Your task to perform on an android device: change the clock style Image 0: 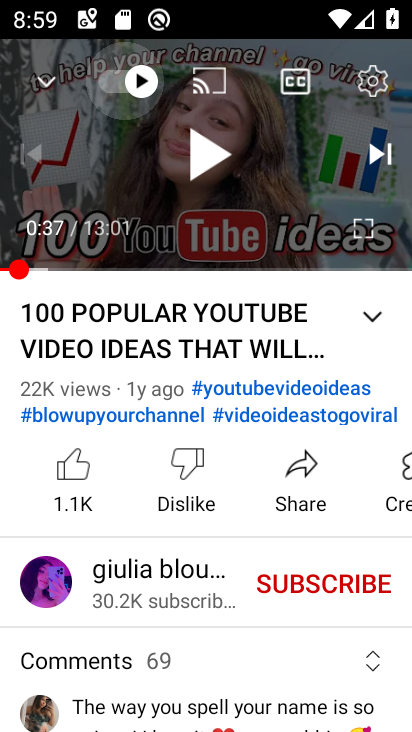
Step 0: press home button
Your task to perform on an android device: change the clock style Image 1: 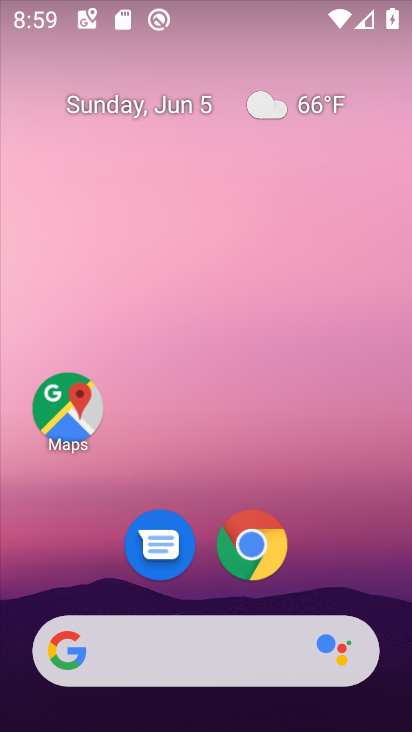
Step 1: drag from (372, 558) to (388, 155)
Your task to perform on an android device: change the clock style Image 2: 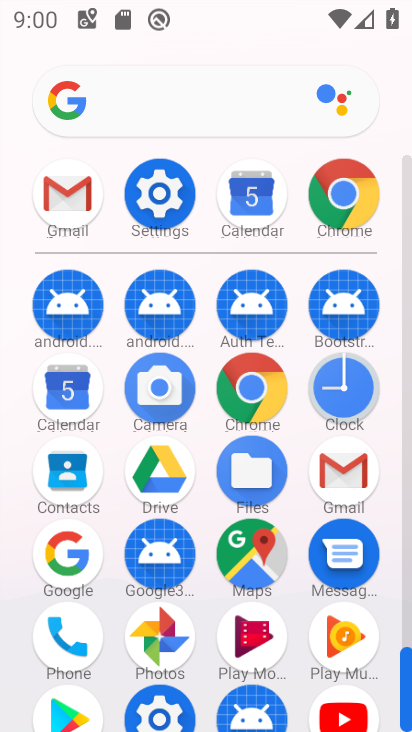
Step 2: click (379, 378)
Your task to perform on an android device: change the clock style Image 3: 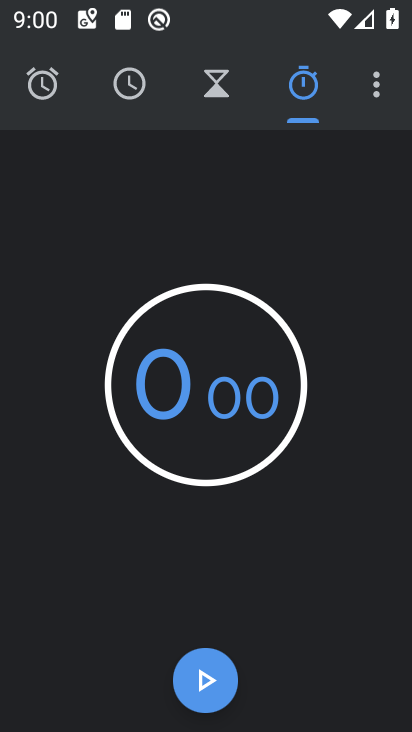
Step 3: click (379, 95)
Your task to perform on an android device: change the clock style Image 4: 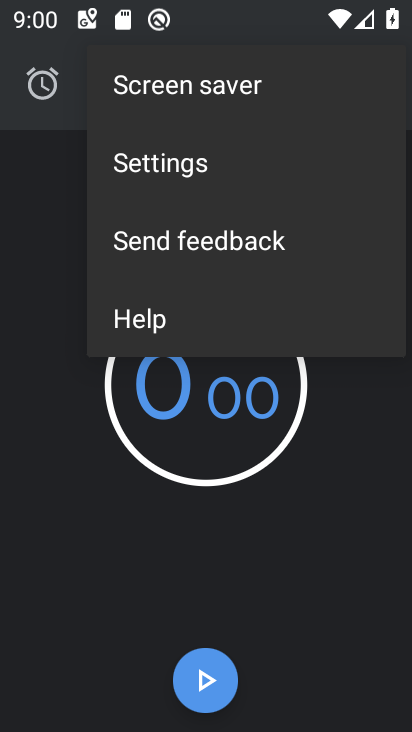
Step 4: click (222, 169)
Your task to perform on an android device: change the clock style Image 5: 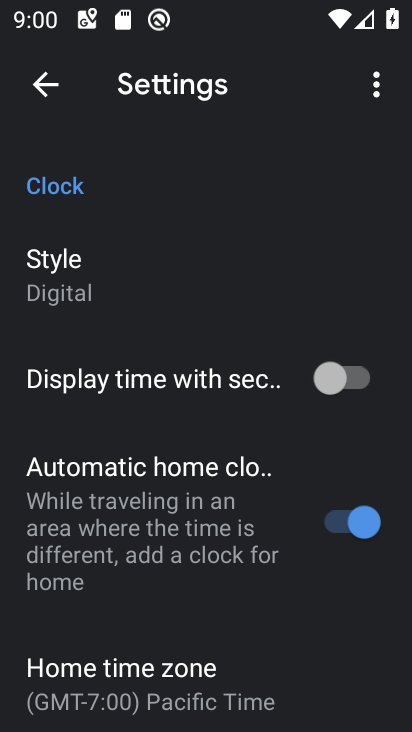
Step 5: drag from (320, 605) to (318, 470)
Your task to perform on an android device: change the clock style Image 6: 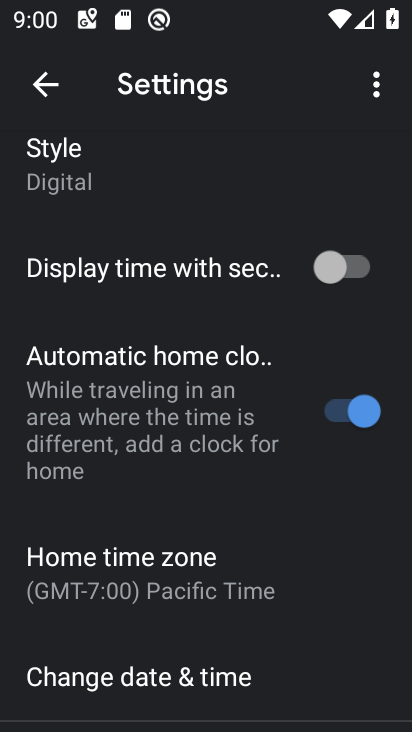
Step 6: drag from (331, 548) to (325, 426)
Your task to perform on an android device: change the clock style Image 7: 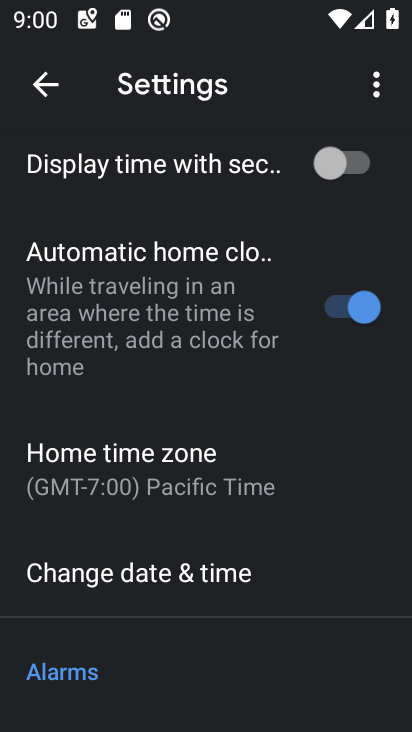
Step 7: drag from (335, 509) to (321, 357)
Your task to perform on an android device: change the clock style Image 8: 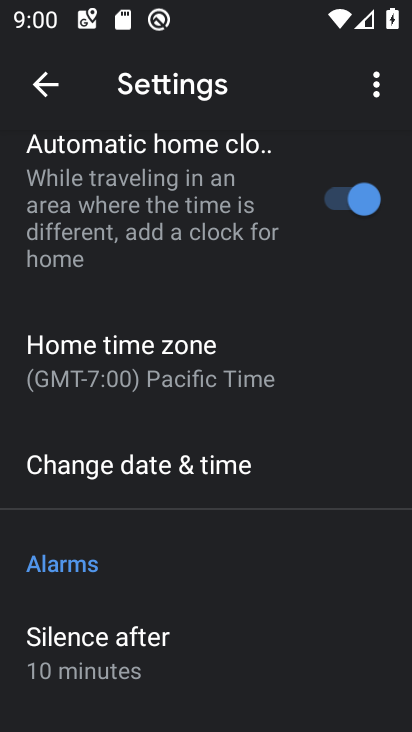
Step 8: drag from (314, 499) to (328, 403)
Your task to perform on an android device: change the clock style Image 9: 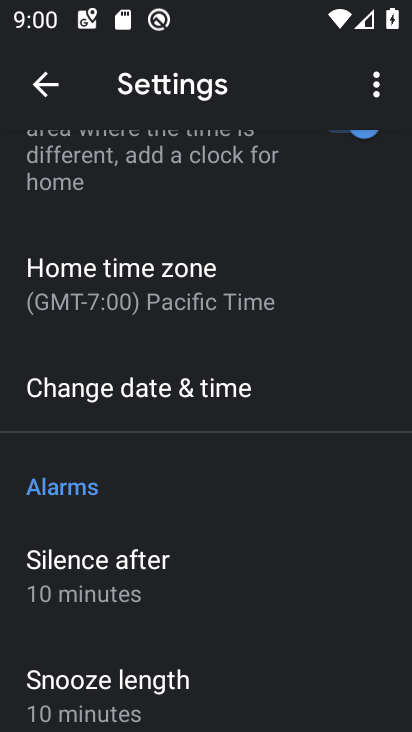
Step 9: drag from (318, 552) to (332, 407)
Your task to perform on an android device: change the clock style Image 10: 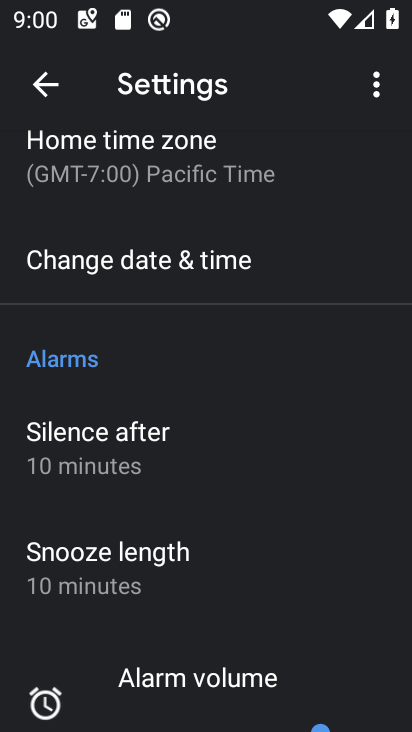
Step 10: drag from (323, 541) to (323, 399)
Your task to perform on an android device: change the clock style Image 11: 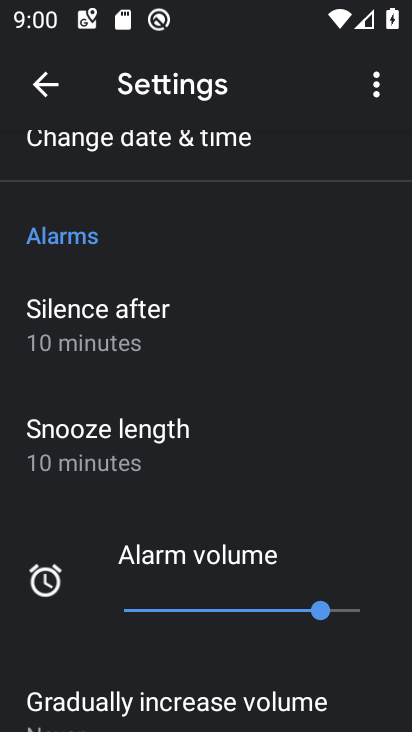
Step 11: drag from (328, 494) to (337, 356)
Your task to perform on an android device: change the clock style Image 12: 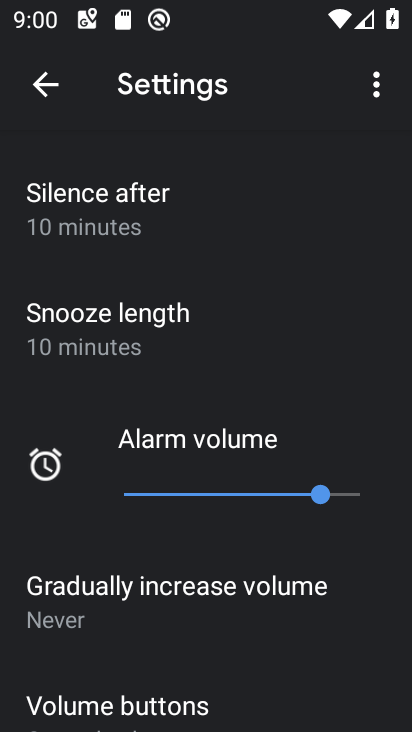
Step 12: drag from (346, 256) to (344, 406)
Your task to perform on an android device: change the clock style Image 13: 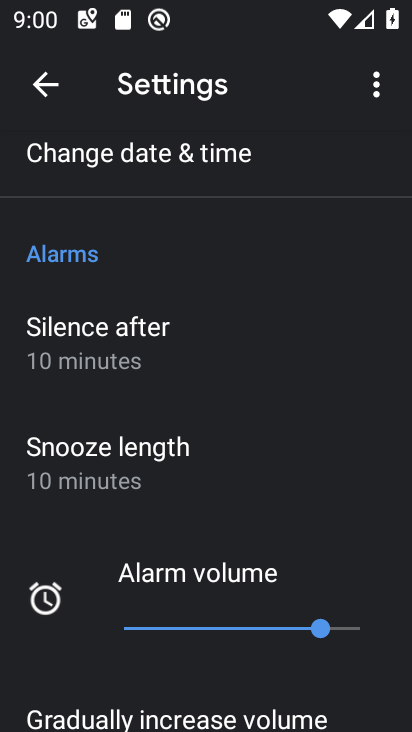
Step 13: drag from (358, 242) to (358, 349)
Your task to perform on an android device: change the clock style Image 14: 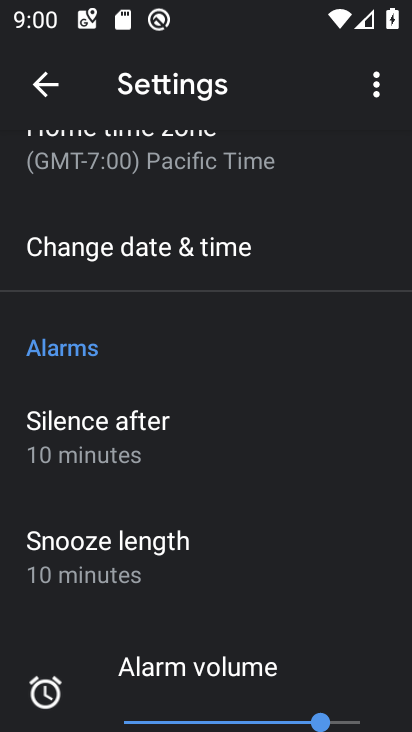
Step 14: drag from (348, 215) to (356, 331)
Your task to perform on an android device: change the clock style Image 15: 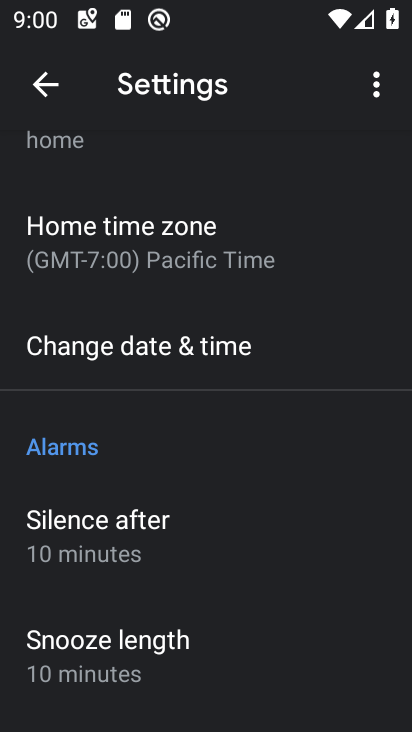
Step 15: drag from (362, 203) to (351, 347)
Your task to perform on an android device: change the clock style Image 16: 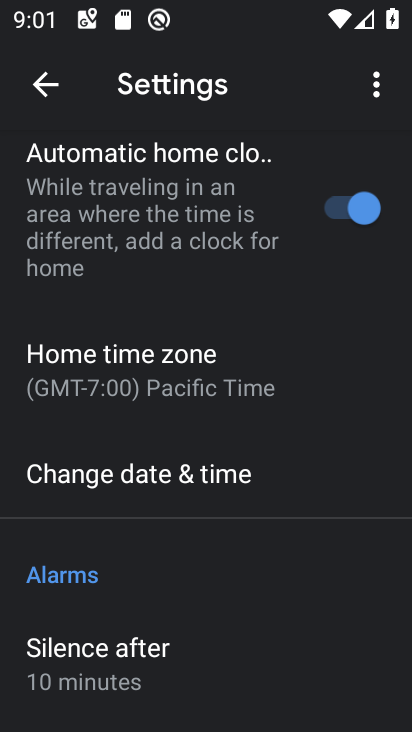
Step 16: drag from (304, 158) to (307, 317)
Your task to perform on an android device: change the clock style Image 17: 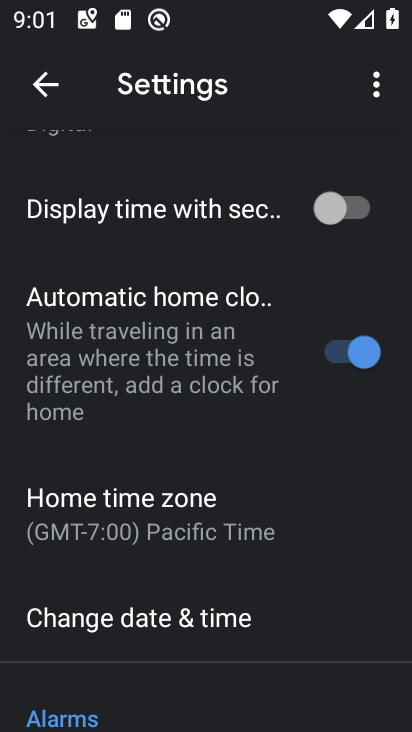
Step 17: drag from (283, 169) to (282, 306)
Your task to perform on an android device: change the clock style Image 18: 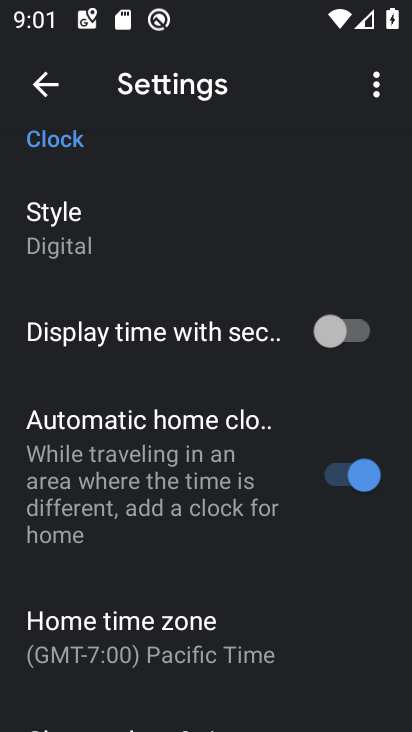
Step 18: click (125, 248)
Your task to perform on an android device: change the clock style Image 19: 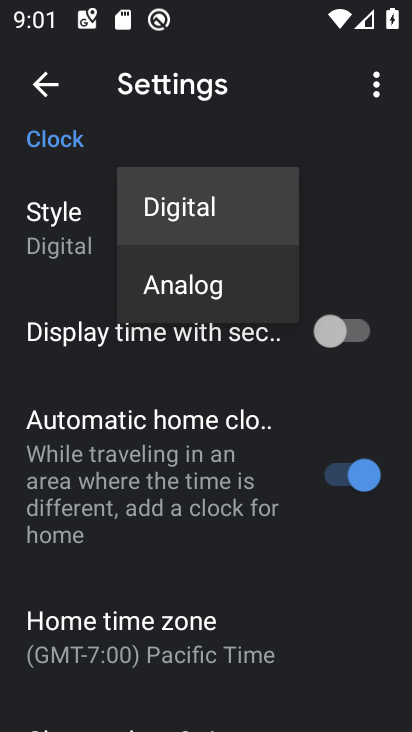
Step 19: click (206, 281)
Your task to perform on an android device: change the clock style Image 20: 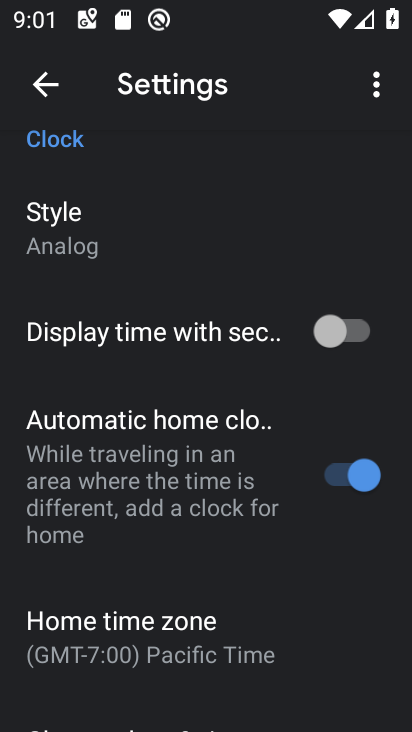
Step 20: task complete